Your task to perform on an android device: open sync settings in chrome Image 0: 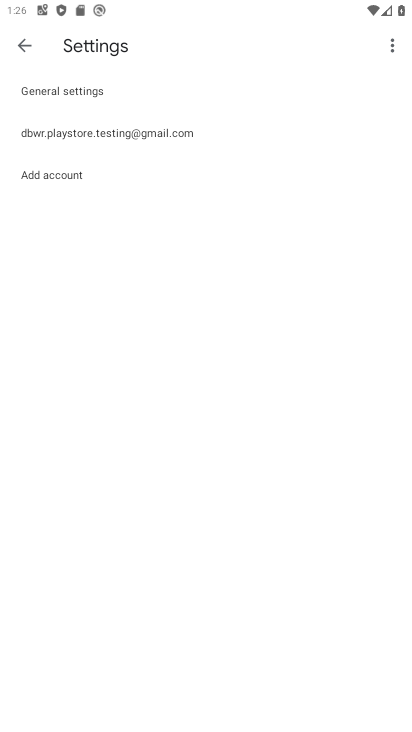
Step 0: press home button
Your task to perform on an android device: open sync settings in chrome Image 1: 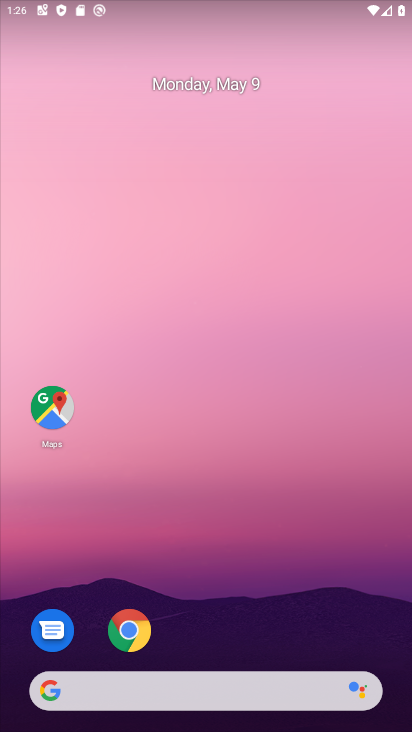
Step 1: drag from (223, 719) to (300, 382)
Your task to perform on an android device: open sync settings in chrome Image 2: 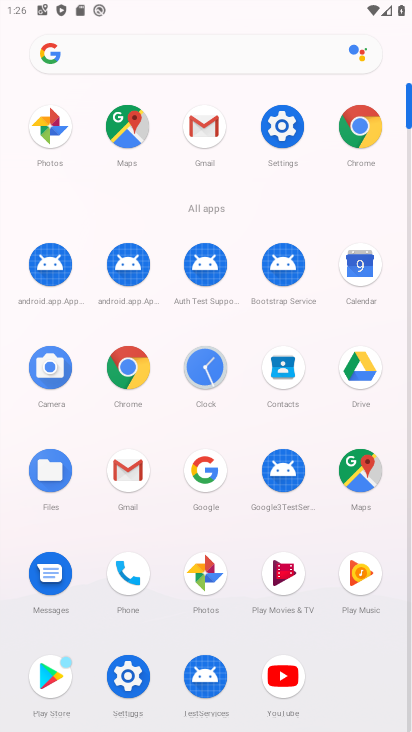
Step 2: click (125, 369)
Your task to perform on an android device: open sync settings in chrome Image 3: 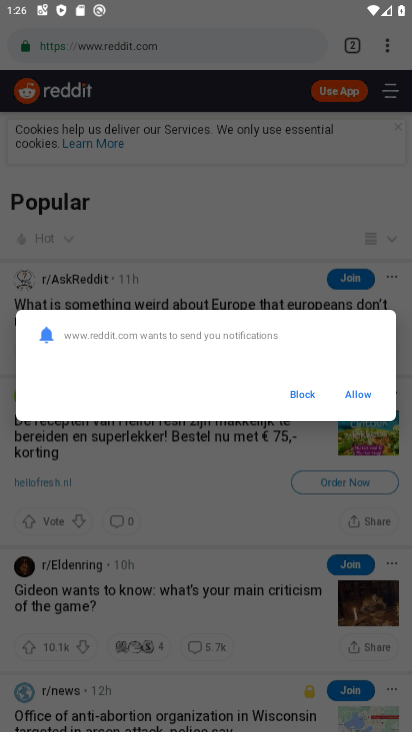
Step 3: click (288, 389)
Your task to perform on an android device: open sync settings in chrome Image 4: 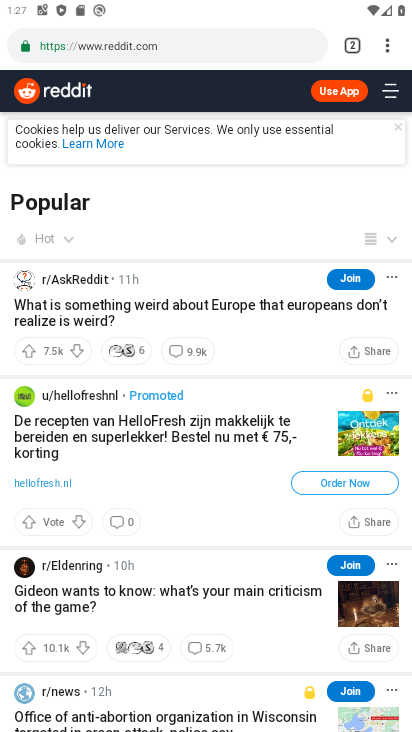
Step 4: click (389, 55)
Your task to perform on an android device: open sync settings in chrome Image 5: 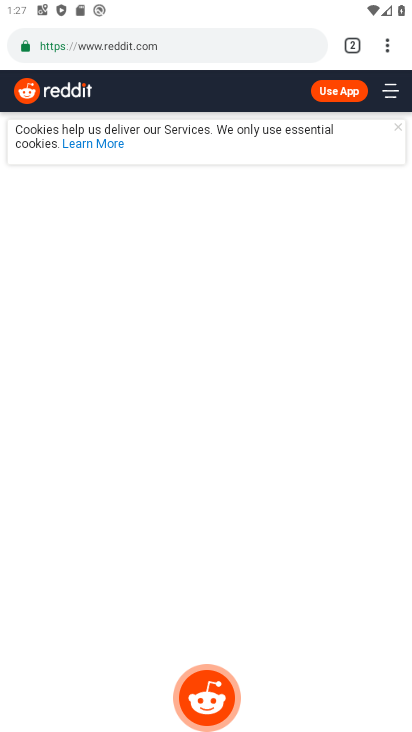
Step 5: click (382, 54)
Your task to perform on an android device: open sync settings in chrome Image 6: 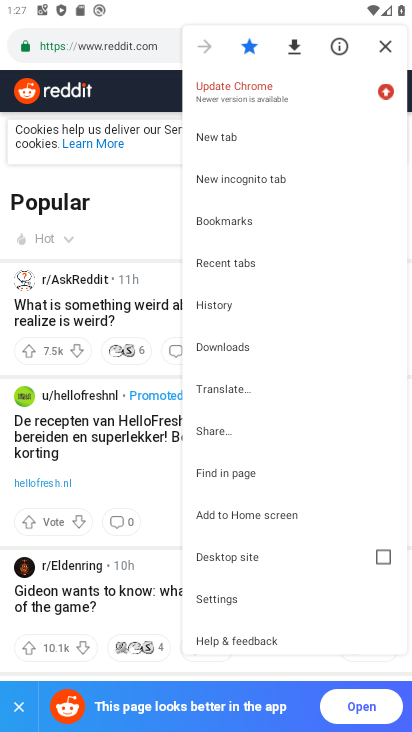
Step 6: click (214, 599)
Your task to perform on an android device: open sync settings in chrome Image 7: 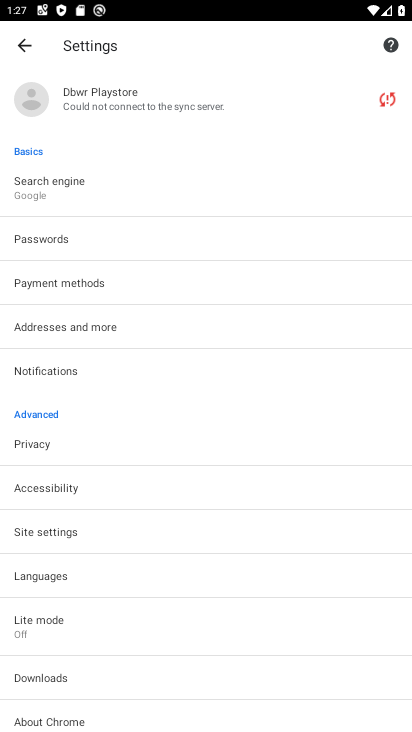
Step 7: click (75, 534)
Your task to perform on an android device: open sync settings in chrome Image 8: 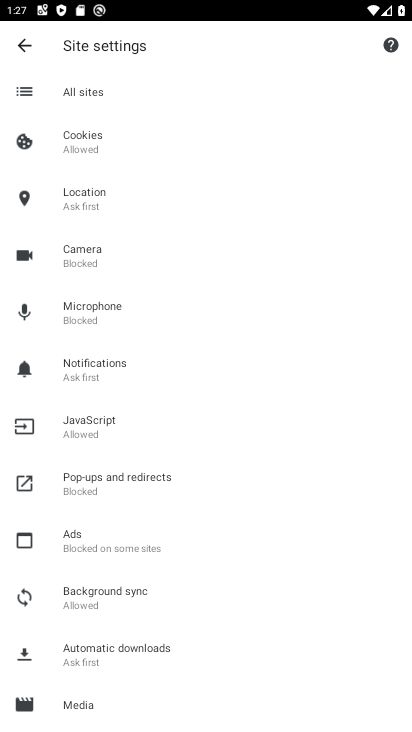
Step 8: click (176, 594)
Your task to perform on an android device: open sync settings in chrome Image 9: 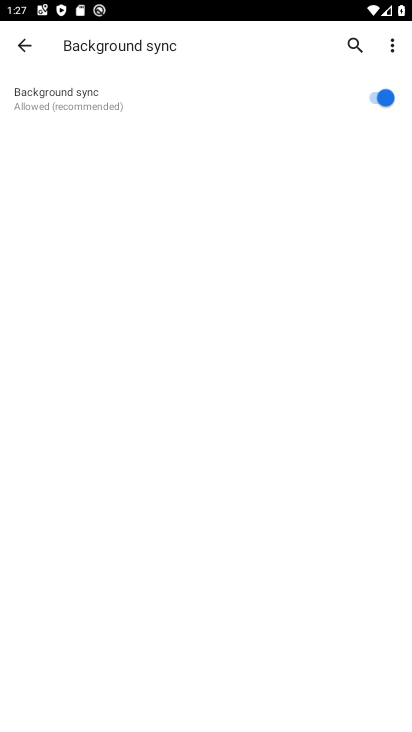
Step 9: click (248, 97)
Your task to perform on an android device: open sync settings in chrome Image 10: 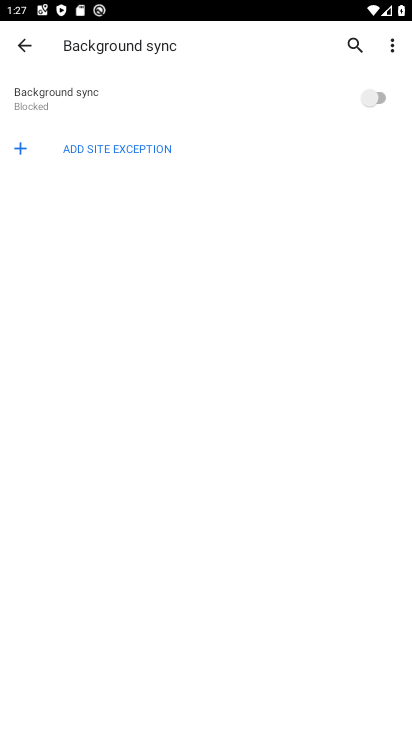
Step 10: click (249, 96)
Your task to perform on an android device: open sync settings in chrome Image 11: 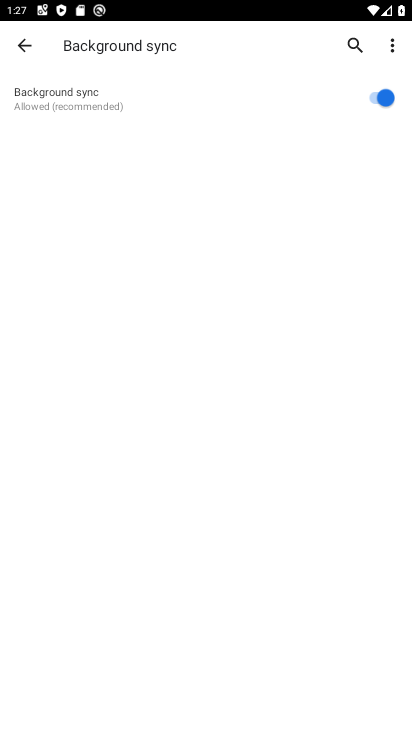
Step 11: task complete